Your task to perform on an android device: Open calendar and show me the second week of next month Image 0: 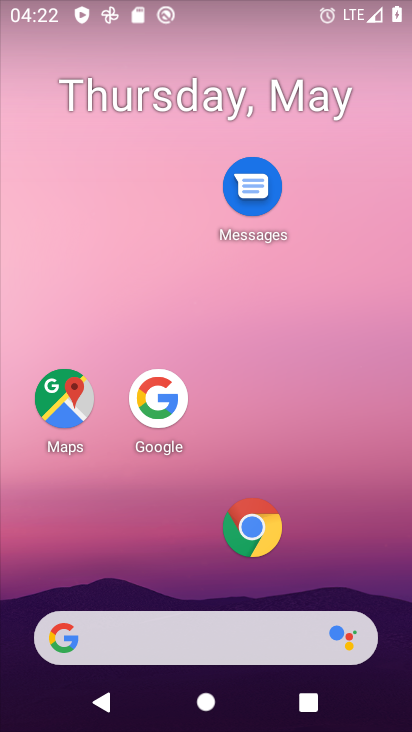
Step 0: drag from (206, 589) to (200, 150)
Your task to perform on an android device: Open calendar and show me the second week of next month Image 1: 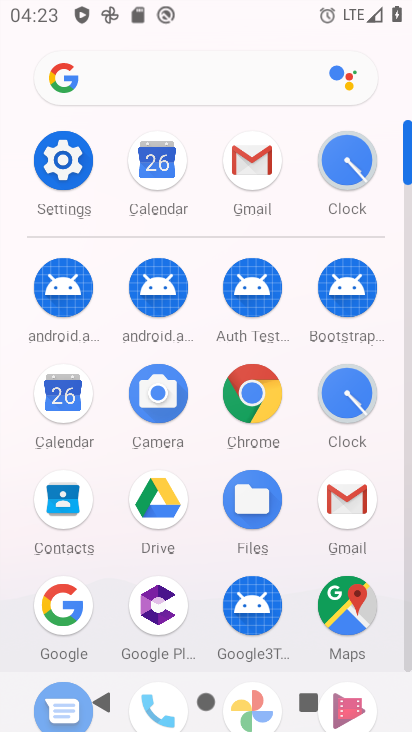
Step 1: click (73, 400)
Your task to perform on an android device: Open calendar and show me the second week of next month Image 2: 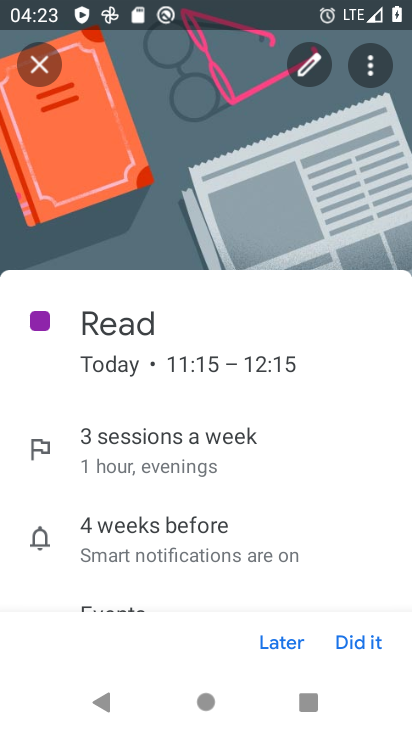
Step 2: click (352, 634)
Your task to perform on an android device: Open calendar and show me the second week of next month Image 3: 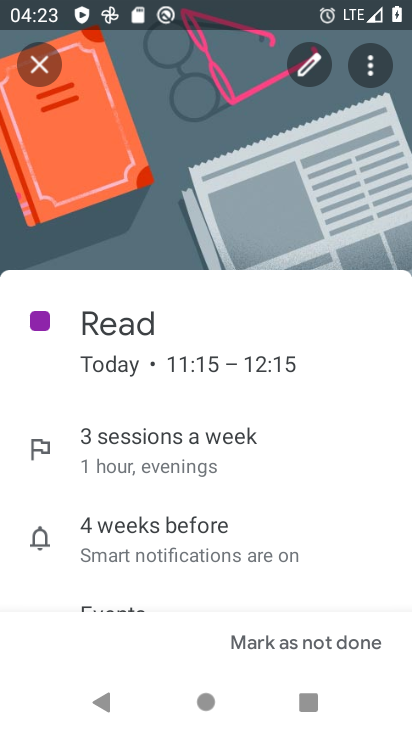
Step 3: click (348, 641)
Your task to perform on an android device: Open calendar and show me the second week of next month Image 4: 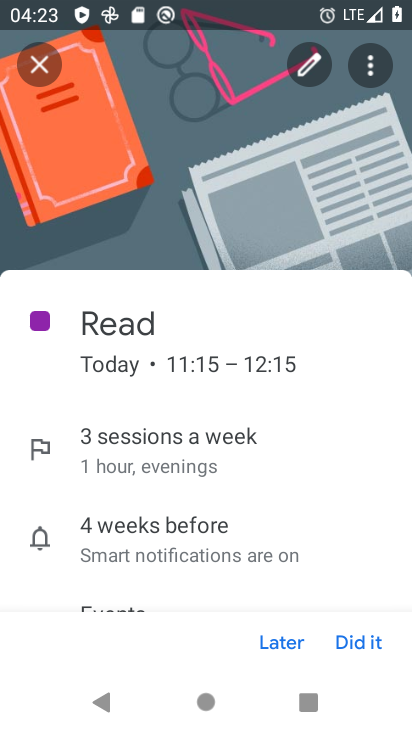
Step 4: click (275, 648)
Your task to perform on an android device: Open calendar and show me the second week of next month Image 5: 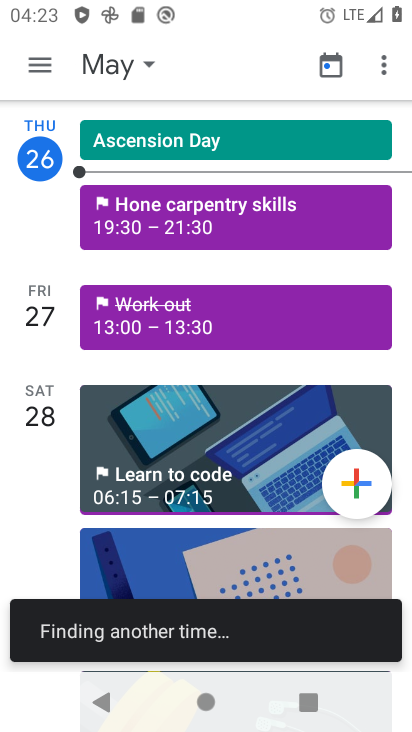
Step 5: click (128, 70)
Your task to perform on an android device: Open calendar and show me the second week of next month Image 6: 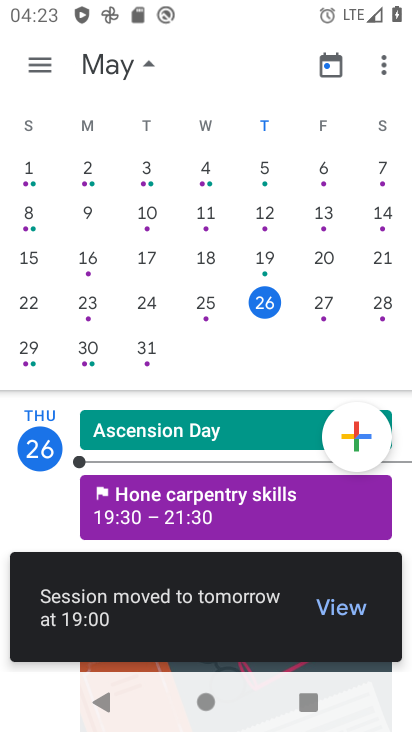
Step 6: drag from (356, 244) to (10, 288)
Your task to perform on an android device: Open calendar and show me the second week of next month Image 7: 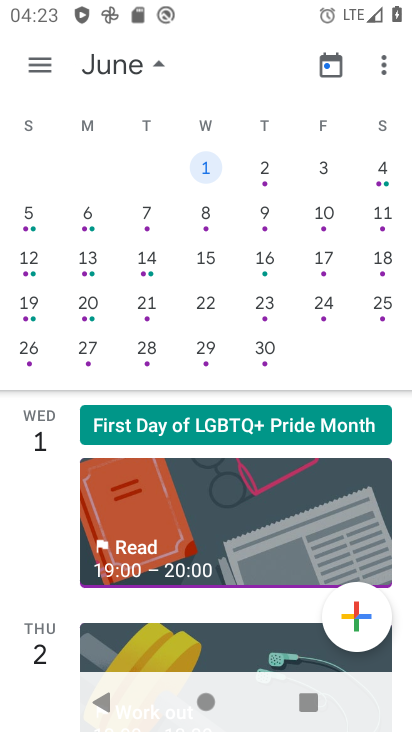
Step 7: click (260, 216)
Your task to perform on an android device: Open calendar and show me the second week of next month Image 8: 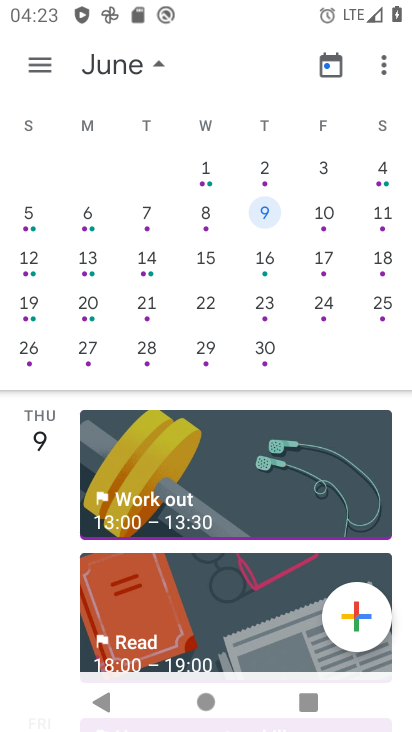
Step 8: task complete